Your task to perform on an android device: Open Google Chrome Image 0: 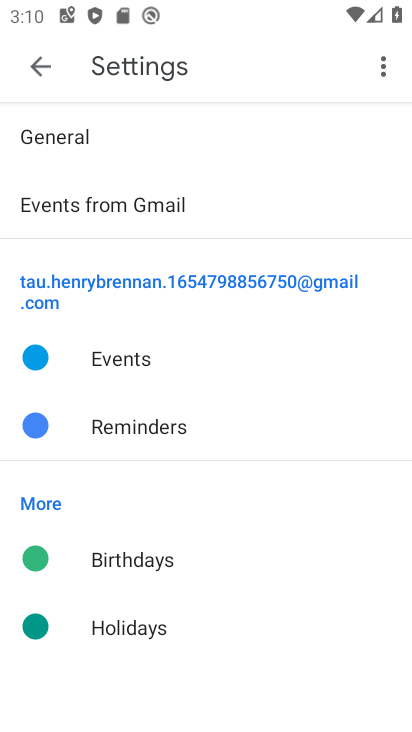
Step 0: press home button
Your task to perform on an android device: Open Google Chrome Image 1: 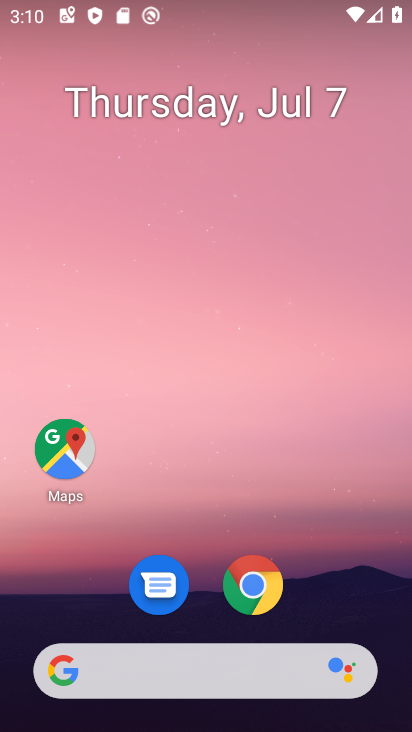
Step 1: click (259, 575)
Your task to perform on an android device: Open Google Chrome Image 2: 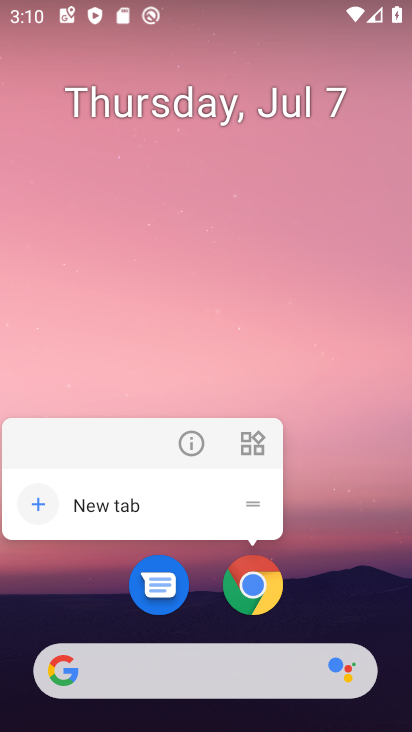
Step 2: click (318, 491)
Your task to perform on an android device: Open Google Chrome Image 3: 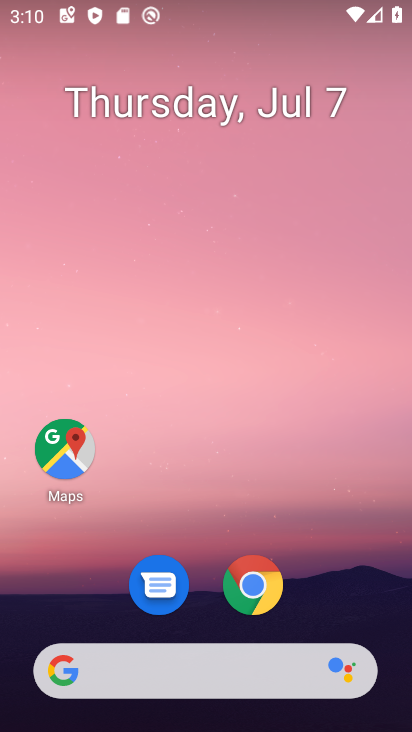
Step 3: click (264, 582)
Your task to perform on an android device: Open Google Chrome Image 4: 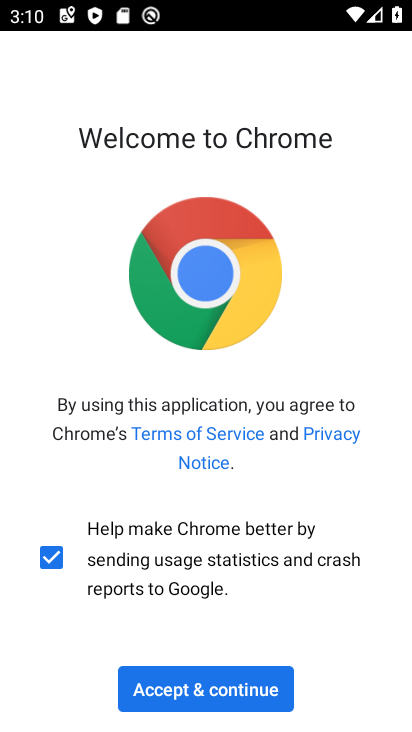
Step 4: click (248, 694)
Your task to perform on an android device: Open Google Chrome Image 5: 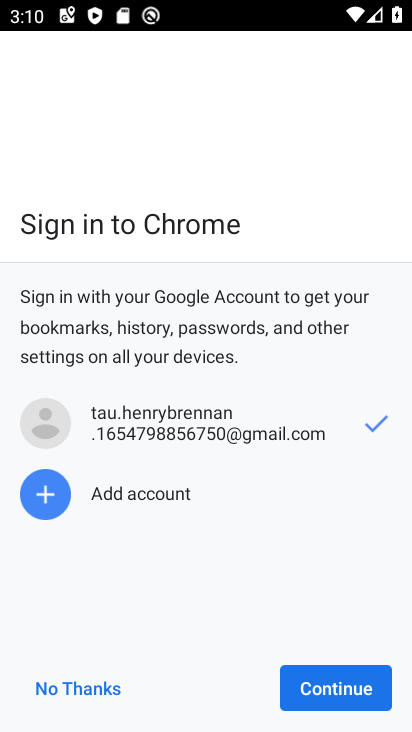
Step 5: click (304, 684)
Your task to perform on an android device: Open Google Chrome Image 6: 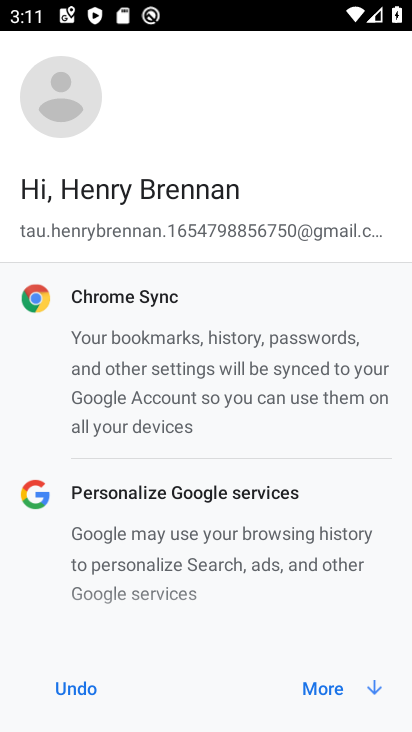
Step 6: click (345, 687)
Your task to perform on an android device: Open Google Chrome Image 7: 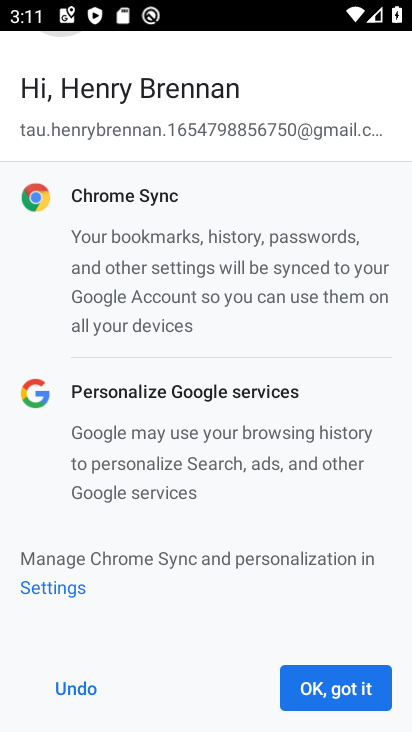
Step 7: click (345, 687)
Your task to perform on an android device: Open Google Chrome Image 8: 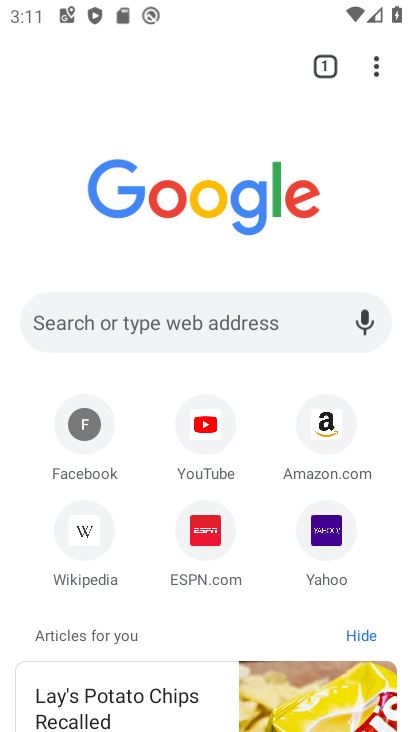
Step 8: task complete